Your task to perform on an android device: turn notification dots on Image 0: 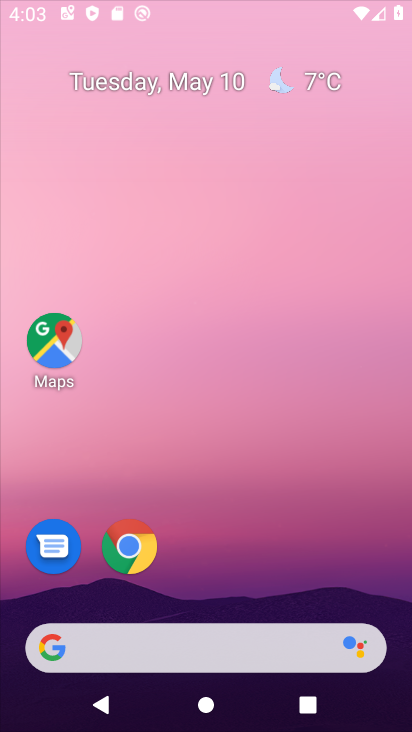
Step 0: click (36, 69)
Your task to perform on an android device: turn notification dots on Image 1: 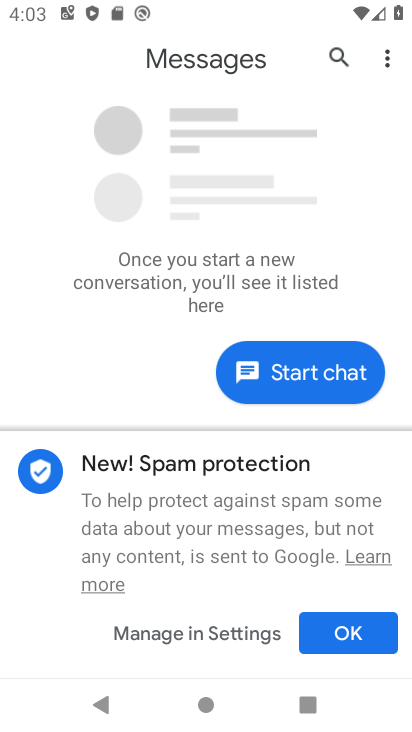
Step 1: drag from (285, 522) to (54, 7)
Your task to perform on an android device: turn notification dots on Image 2: 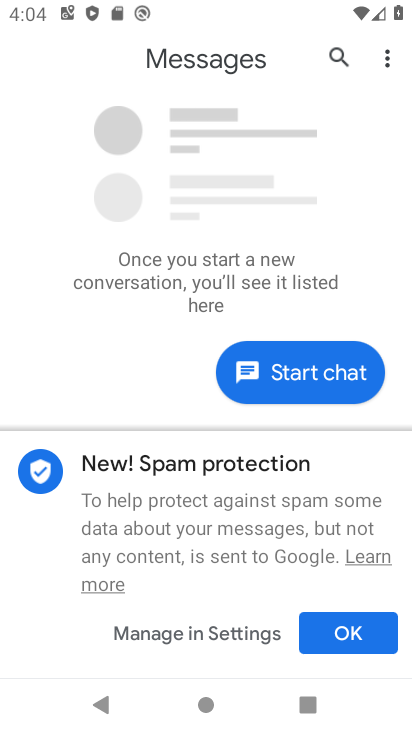
Step 2: press back button
Your task to perform on an android device: turn notification dots on Image 3: 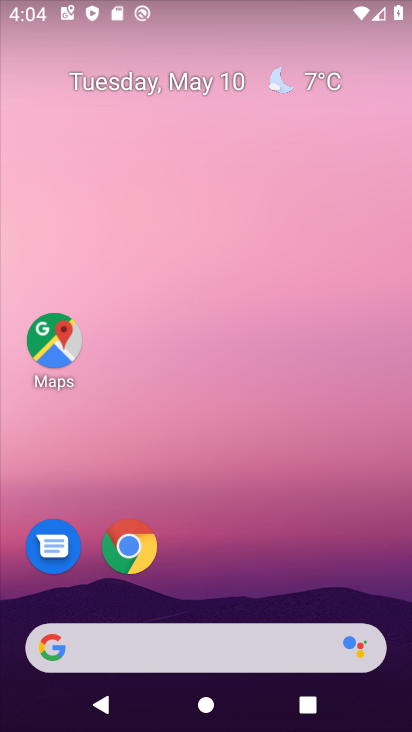
Step 3: drag from (262, 319) to (102, 24)
Your task to perform on an android device: turn notification dots on Image 4: 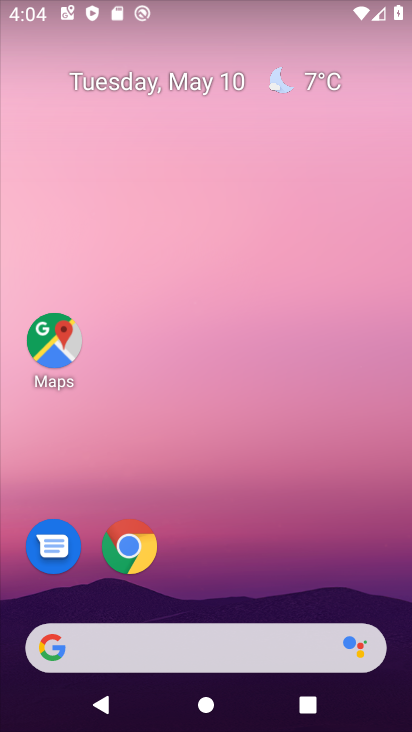
Step 4: drag from (268, 619) to (90, 118)
Your task to perform on an android device: turn notification dots on Image 5: 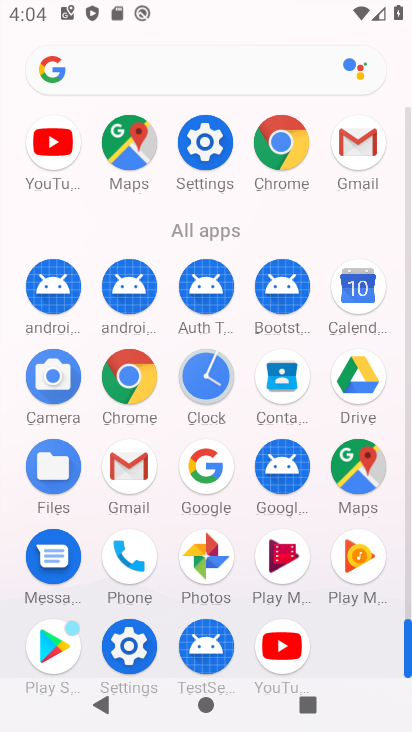
Step 5: click (196, 138)
Your task to perform on an android device: turn notification dots on Image 6: 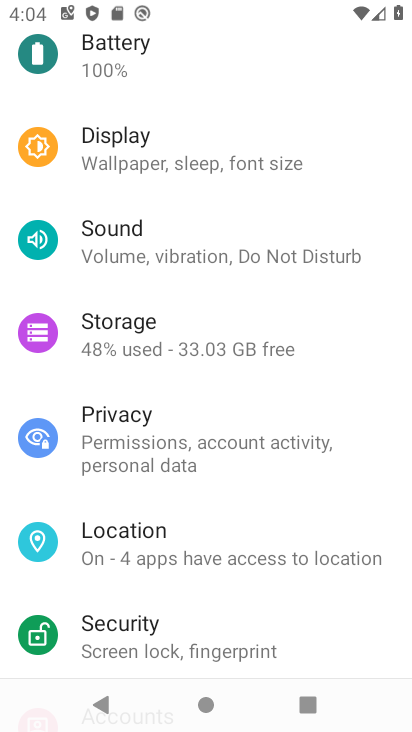
Step 6: drag from (122, 258) to (194, 559)
Your task to perform on an android device: turn notification dots on Image 7: 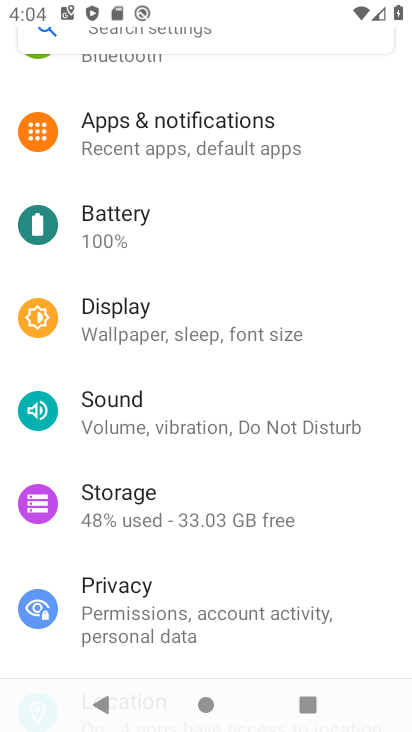
Step 7: drag from (179, 310) to (199, 584)
Your task to perform on an android device: turn notification dots on Image 8: 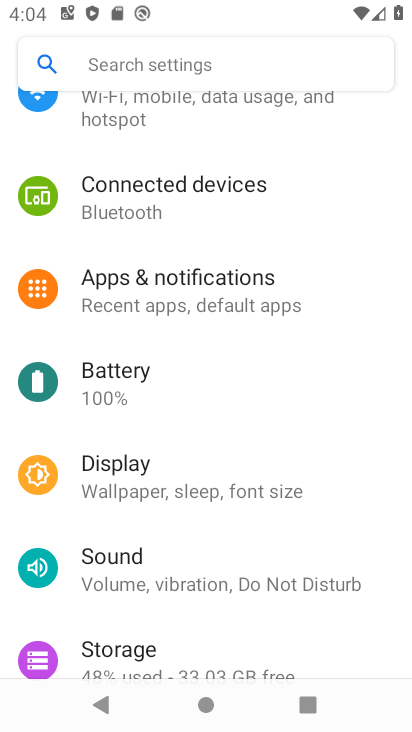
Step 8: click (146, 290)
Your task to perform on an android device: turn notification dots on Image 9: 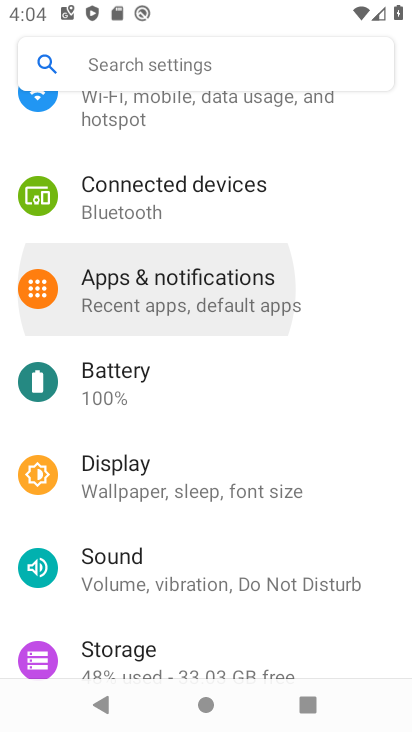
Step 9: click (146, 290)
Your task to perform on an android device: turn notification dots on Image 10: 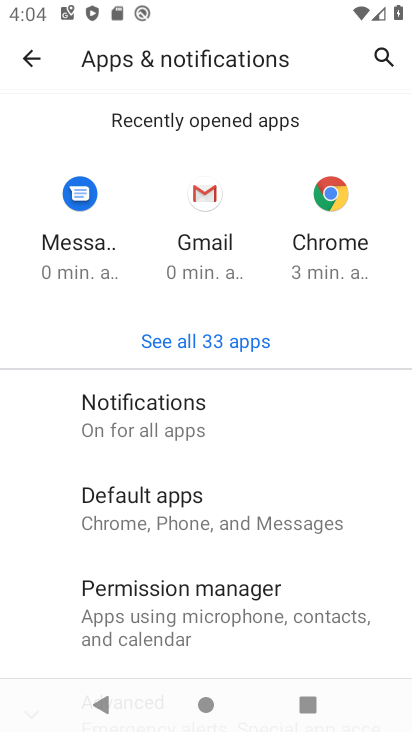
Step 10: click (118, 402)
Your task to perform on an android device: turn notification dots on Image 11: 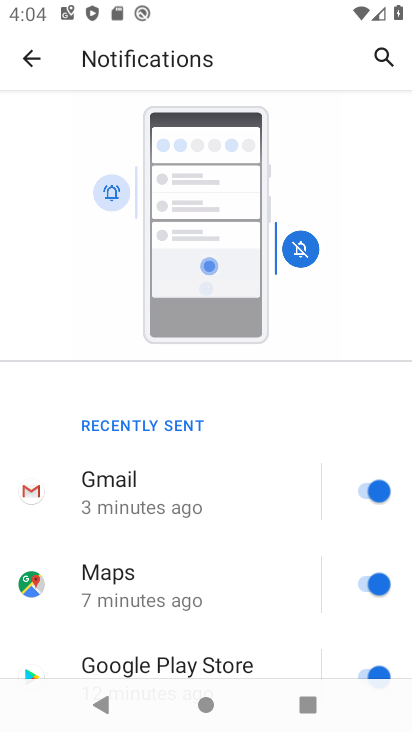
Step 11: drag from (196, 527) to (195, 125)
Your task to perform on an android device: turn notification dots on Image 12: 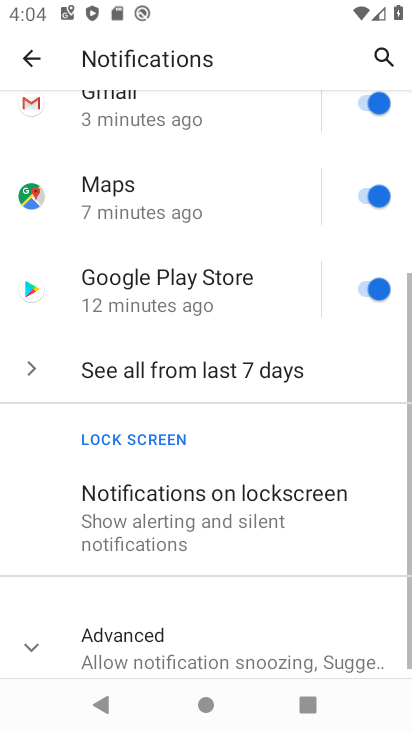
Step 12: drag from (215, 530) to (163, 175)
Your task to perform on an android device: turn notification dots on Image 13: 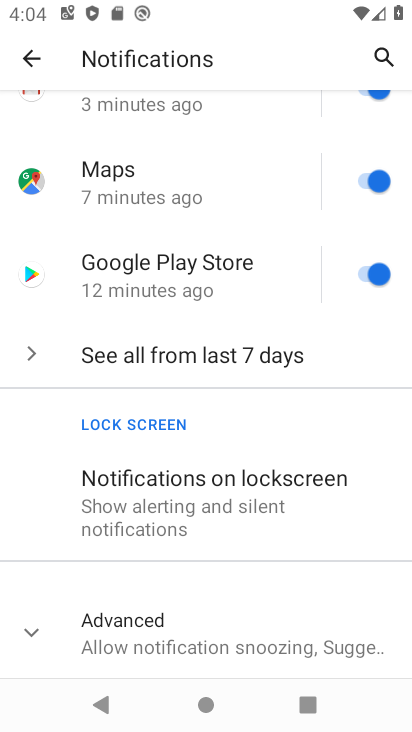
Step 13: click (112, 635)
Your task to perform on an android device: turn notification dots on Image 14: 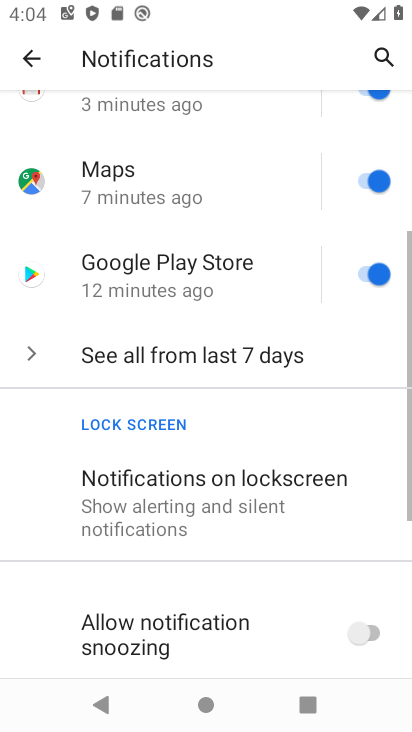
Step 14: task complete